Your task to perform on an android device: Open Wikipedia Image 0: 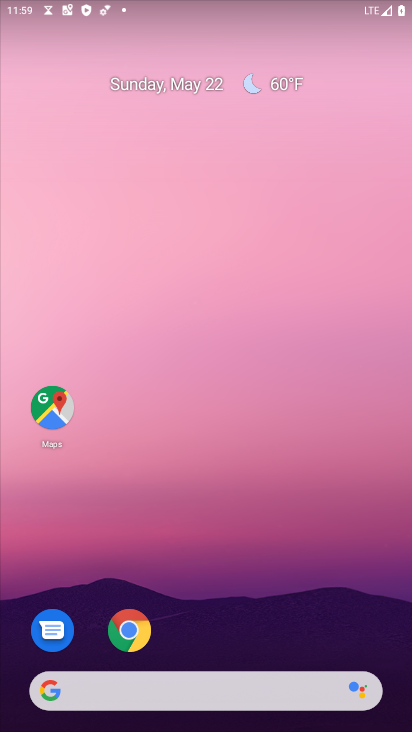
Step 0: drag from (271, 648) to (248, 43)
Your task to perform on an android device: Open Wikipedia Image 1: 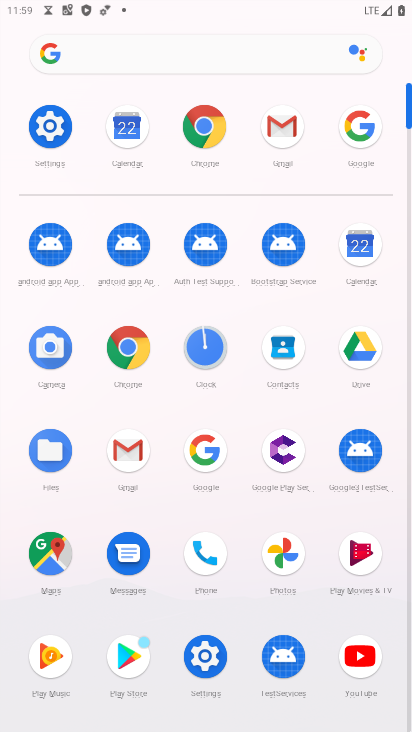
Step 1: click (207, 129)
Your task to perform on an android device: Open Wikipedia Image 2: 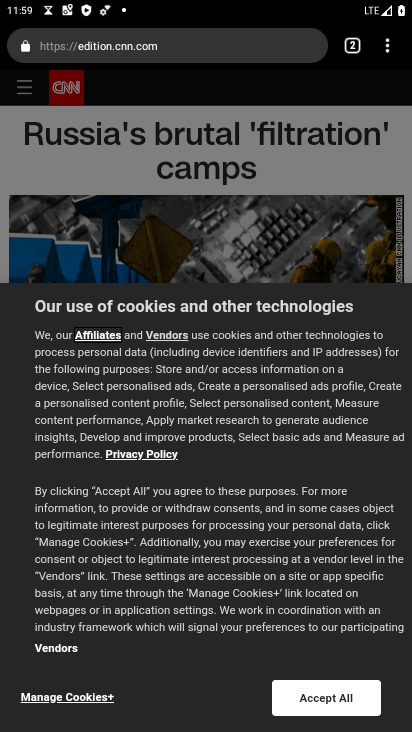
Step 2: click (244, 43)
Your task to perform on an android device: Open Wikipedia Image 3: 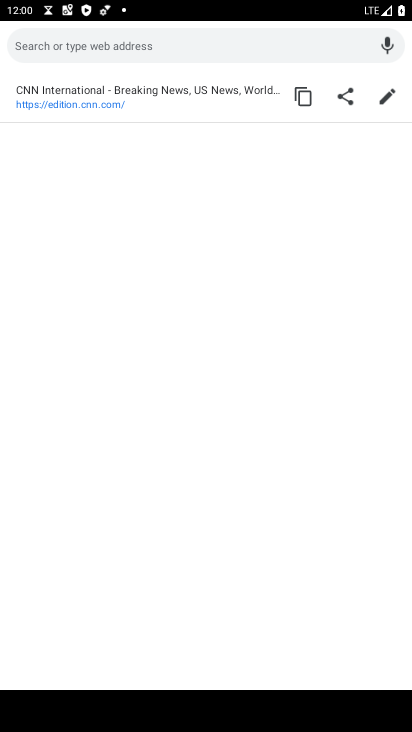
Step 3: type "Wikipedia"
Your task to perform on an android device: Open Wikipedia Image 4: 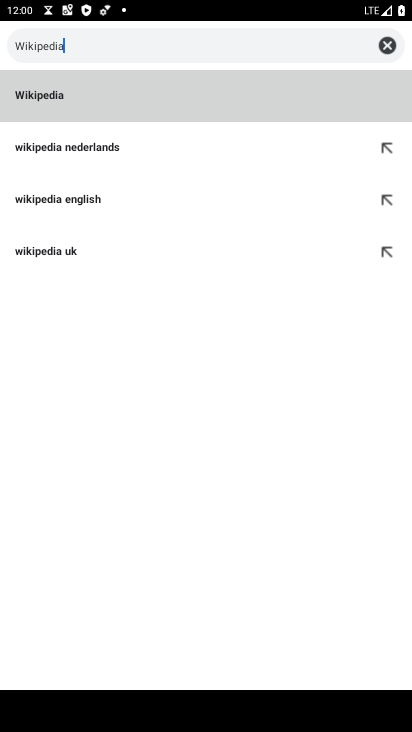
Step 4: click (19, 101)
Your task to perform on an android device: Open Wikipedia Image 5: 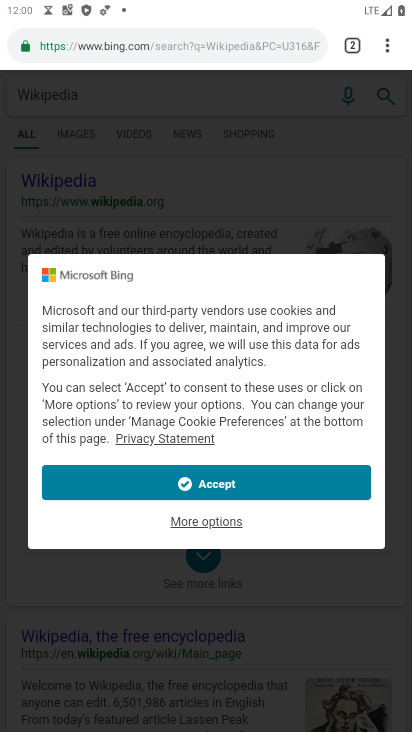
Step 5: click (224, 494)
Your task to perform on an android device: Open Wikipedia Image 6: 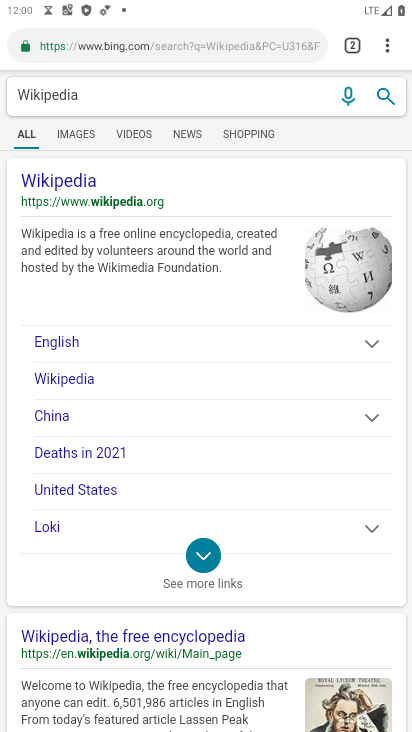
Step 6: click (95, 201)
Your task to perform on an android device: Open Wikipedia Image 7: 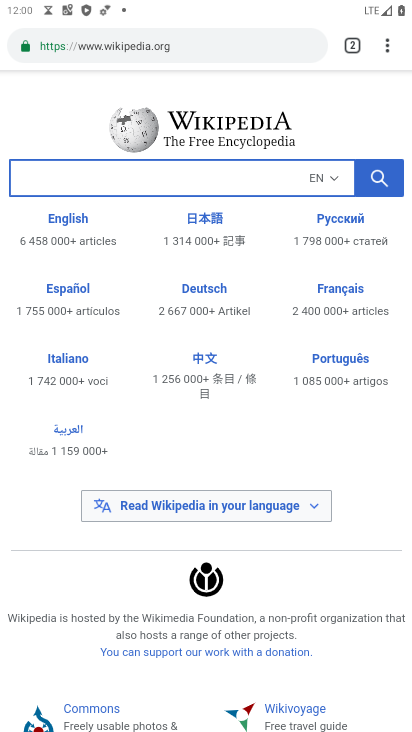
Step 7: task complete